Your task to perform on an android device: change the upload size in google photos Image 0: 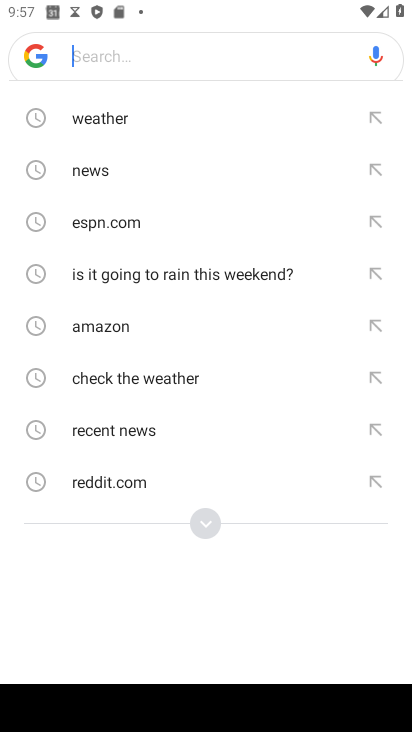
Step 0: press home button
Your task to perform on an android device: change the upload size in google photos Image 1: 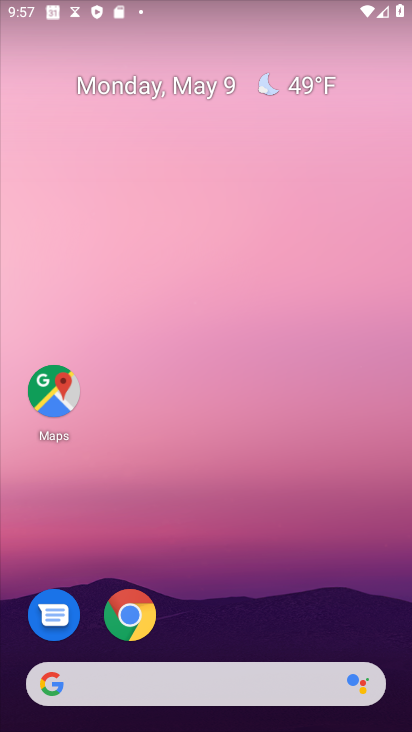
Step 1: drag from (194, 595) to (173, 102)
Your task to perform on an android device: change the upload size in google photos Image 2: 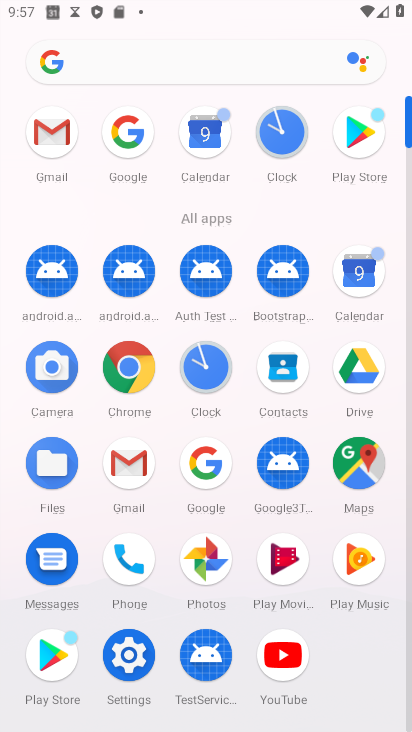
Step 2: click (216, 571)
Your task to perform on an android device: change the upload size in google photos Image 3: 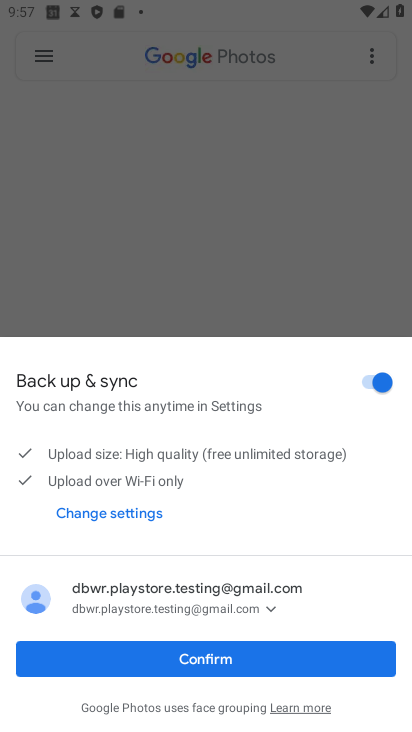
Step 3: click (201, 663)
Your task to perform on an android device: change the upload size in google photos Image 4: 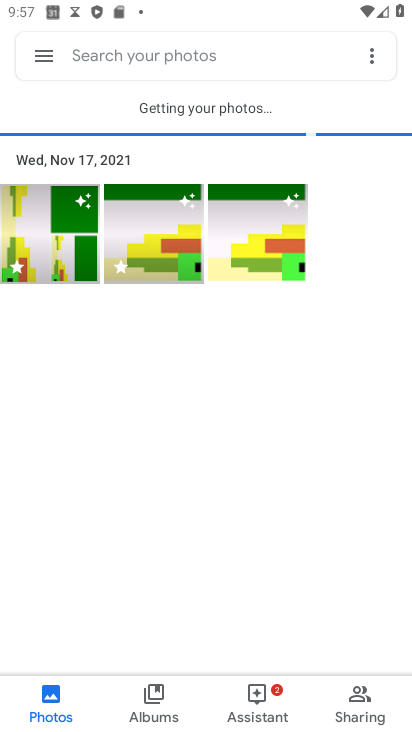
Step 4: click (47, 60)
Your task to perform on an android device: change the upload size in google photos Image 5: 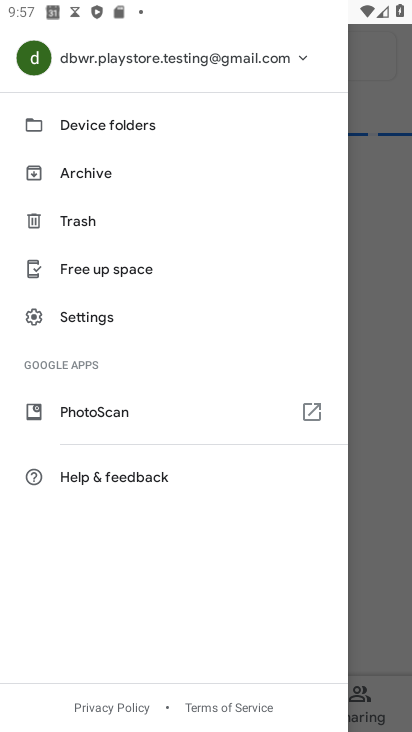
Step 5: click (107, 331)
Your task to perform on an android device: change the upload size in google photos Image 6: 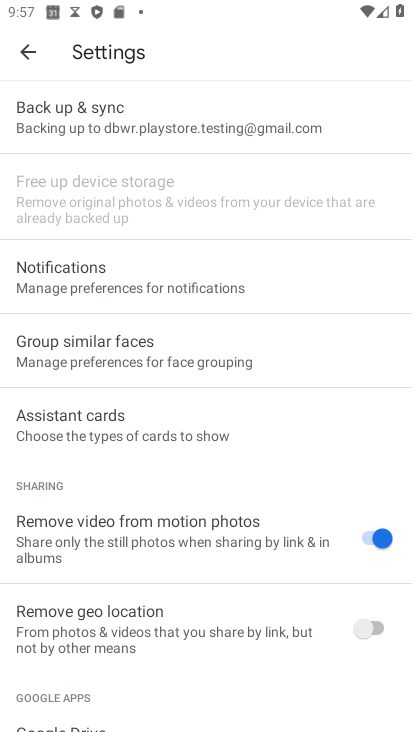
Step 6: click (108, 121)
Your task to perform on an android device: change the upload size in google photos Image 7: 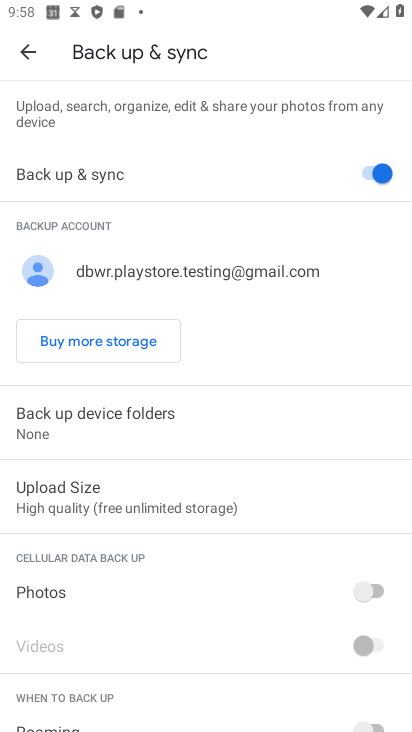
Step 7: click (217, 506)
Your task to perform on an android device: change the upload size in google photos Image 8: 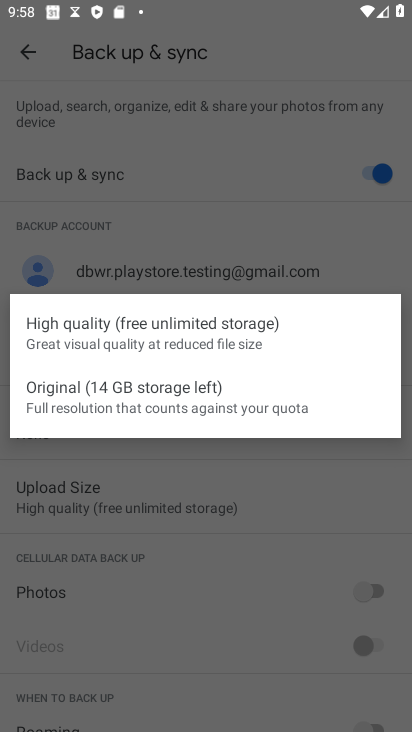
Step 8: click (170, 410)
Your task to perform on an android device: change the upload size in google photos Image 9: 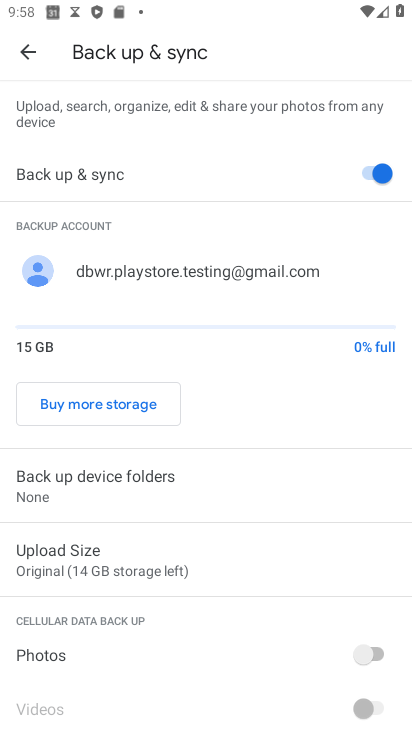
Step 9: task complete